Your task to perform on an android device: see tabs open on other devices in the chrome app Image 0: 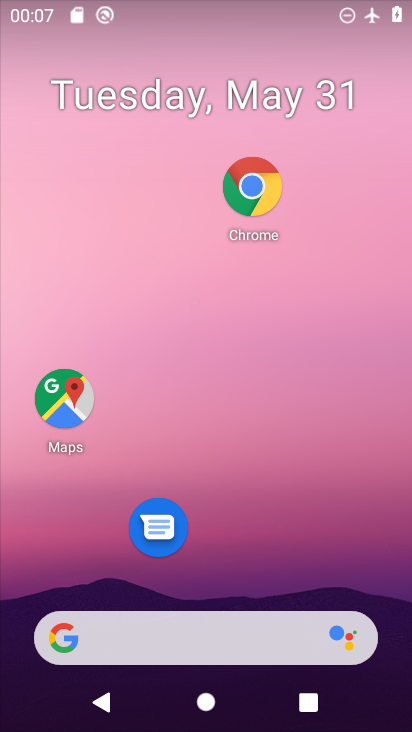
Step 0: click (251, 182)
Your task to perform on an android device: see tabs open on other devices in the chrome app Image 1: 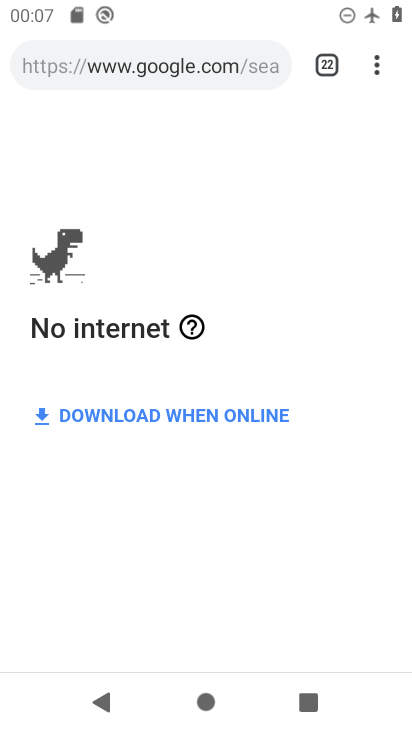
Step 1: click (379, 70)
Your task to perform on an android device: see tabs open on other devices in the chrome app Image 2: 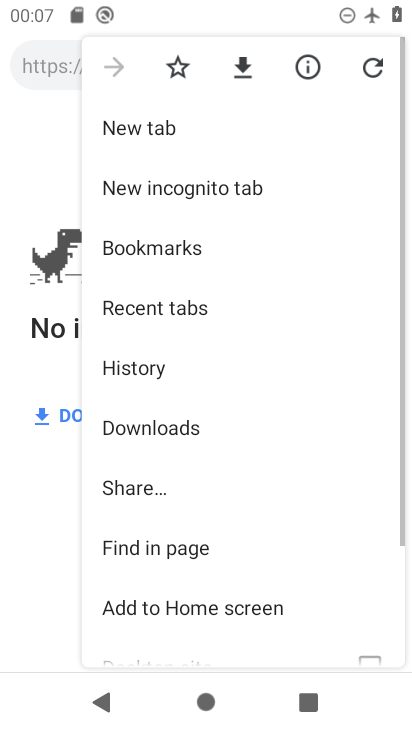
Step 2: click (166, 132)
Your task to perform on an android device: see tabs open on other devices in the chrome app Image 3: 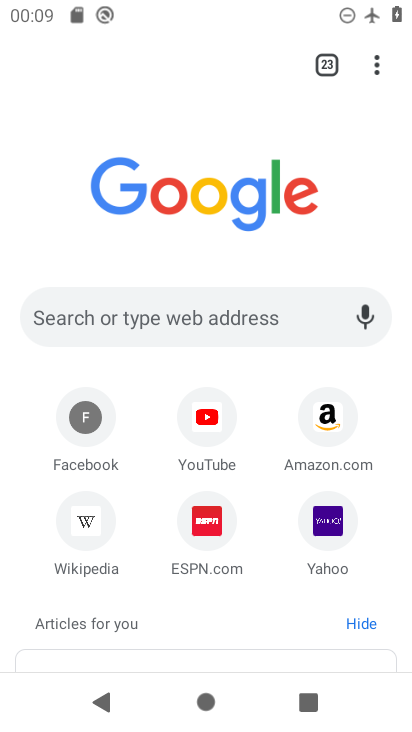
Step 3: task complete